Your task to perform on an android device: change the clock display to analog Image 0: 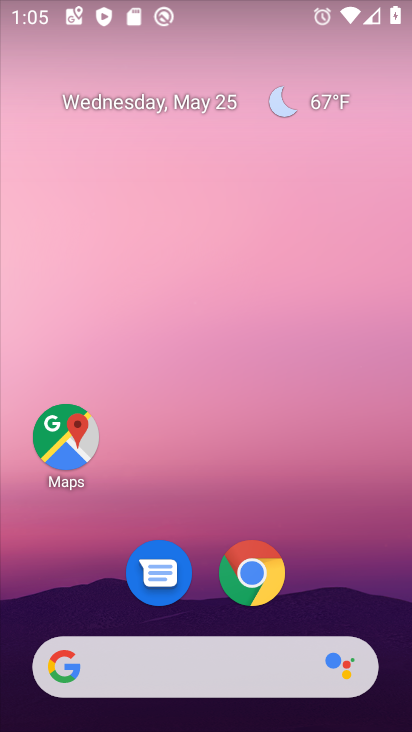
Step 0: drag from (93, 617) to (177, 192)
Your task to perform on an android device: change the clock display to analog Image 1: 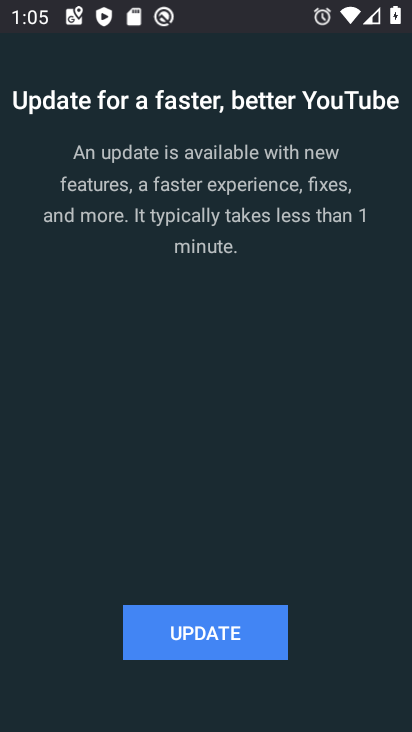
Step 1: press back button
Your task to perform on an android device: change the clock display to analog Image 2: 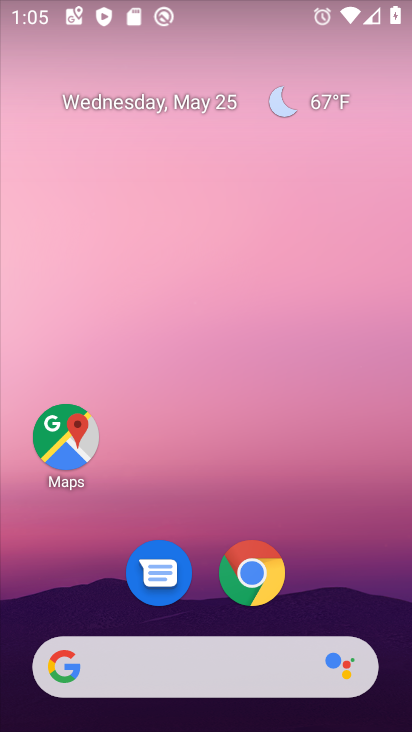
Step 2: drag from (127, 652) to (235, 62)
Your task to perform on an android device: change the clock display to analog Image 3: 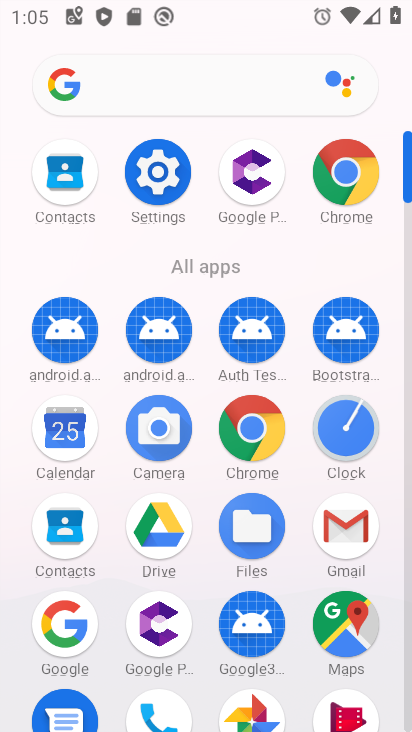
Step 3: click (333, 429)
Your task to perform on an android device: change the clock display to analog Image 4: 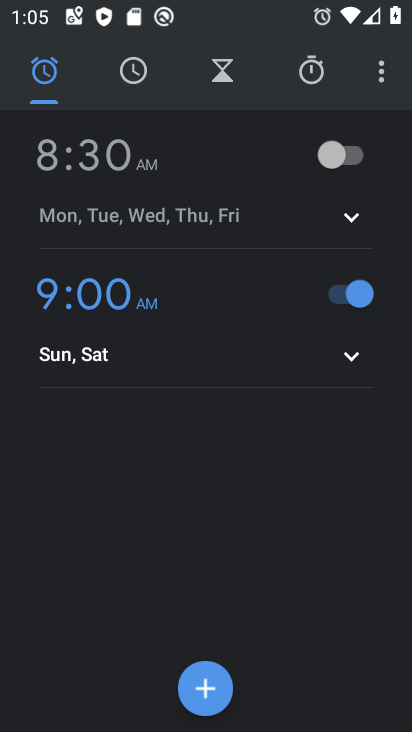
Step 4: click (365, 82)
Your task to perform on an android device: change the clock display to analog Image 5: 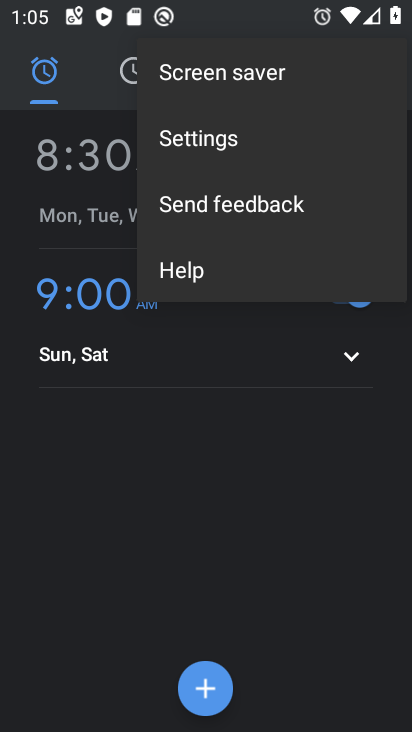
Step 5: click (287, 149)
Your task to perform on an android device: change the clock display to analog Image 6: 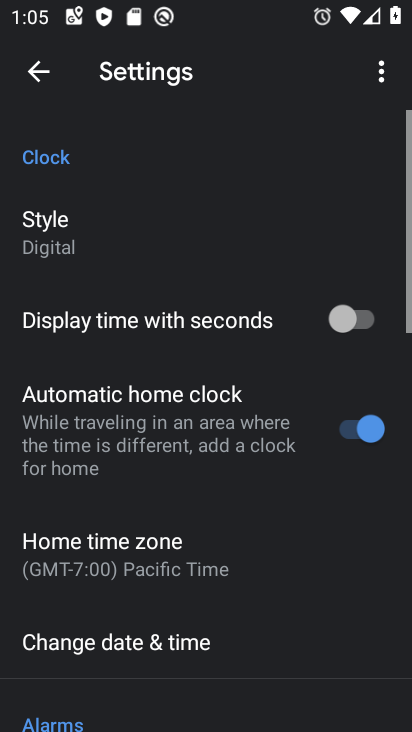
Step 6: click (96, 233)
Your task to perform on an android device: change the clock display to analog Image 7: 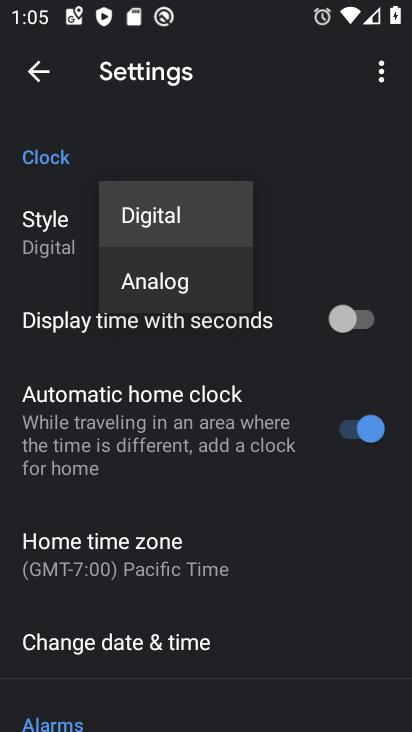
Step 7: click (160, 281)
Your task to perform on an android device: change the clock display to analog Image 8: 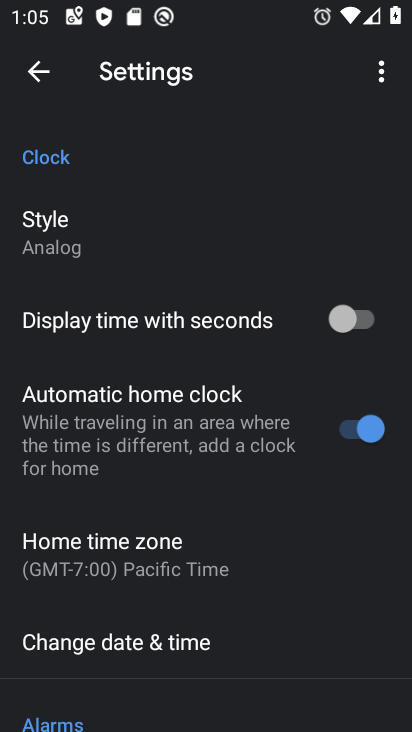
Step 8: task complete